Your task to perform on an android device: toggle javascript in the chrome app Image 0: 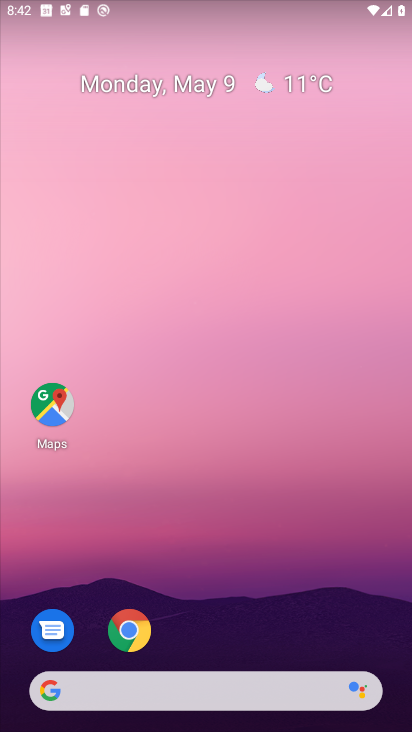
Step 0: click (121, 641)
Your task to perform on an android device: toggle javascript in the chrome app Image 1: 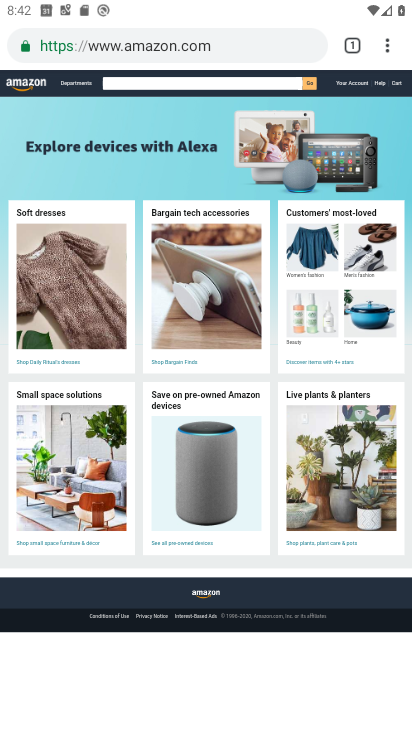
Step 1: drag from (389, 40) to (269, 545)
Your task to perform on an android device: toggle javascript in the chrome app Image 2: 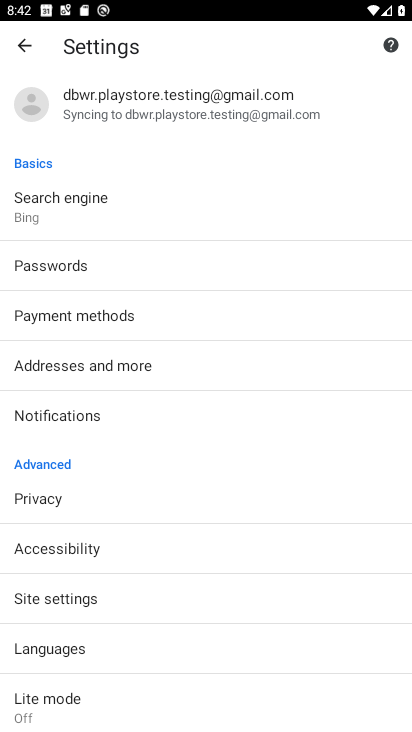
Step 2: click (87, 605)
Your task to perform on an android device: toggle javascript in the chrome app Image 3: 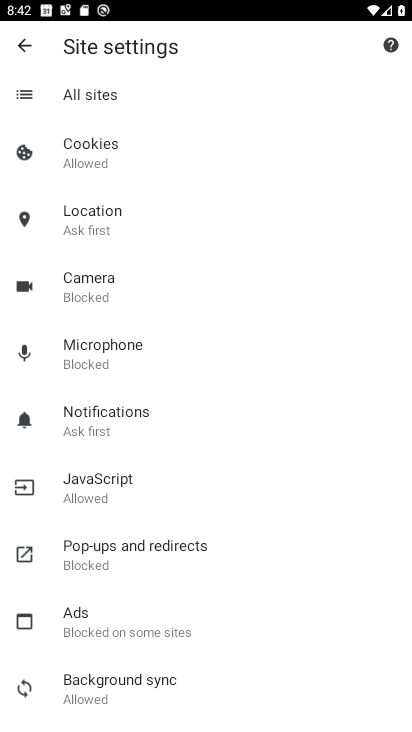
Step 3: drag from (165, 683) to (197, 510)
Your task to perform on an android device: toggle javascript in the chrome app Image 4: 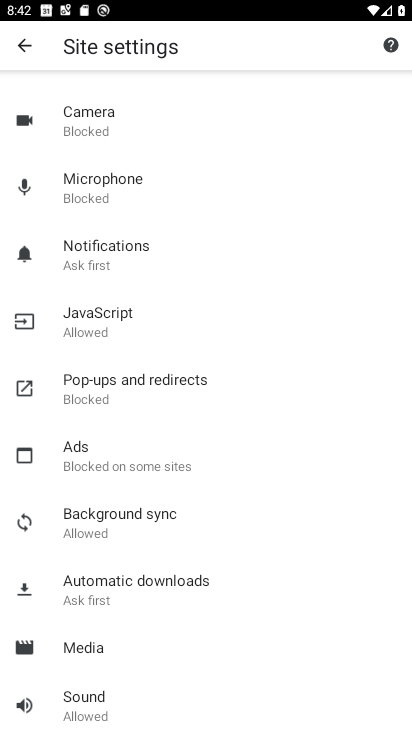
Step 4: click (171, 333)
Your task to perform on an android device: toggle javascript in the chrome app Image 5: 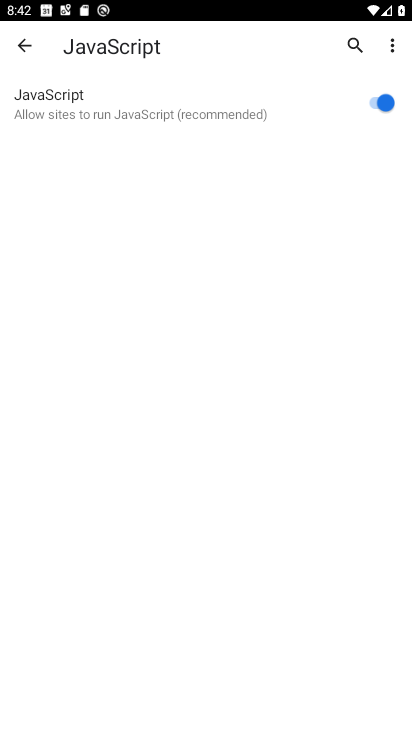
Step 5: click (385, 96)
Your task to perform on an android device: toggle javascript in the chrome app Image 6: 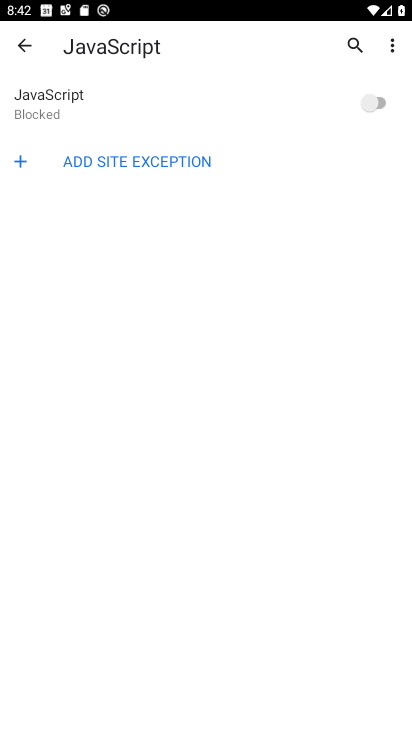
Step 6: task complete